Your task to perform on an android device: clear all cookies in the chrome app Image 0: 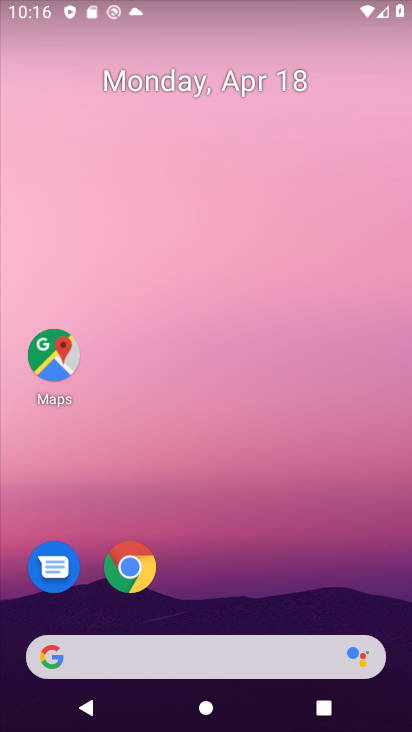
Step 0: click (139, 573)
Your task to perform on an android device: clear all cookies in the chrome app Image 1: 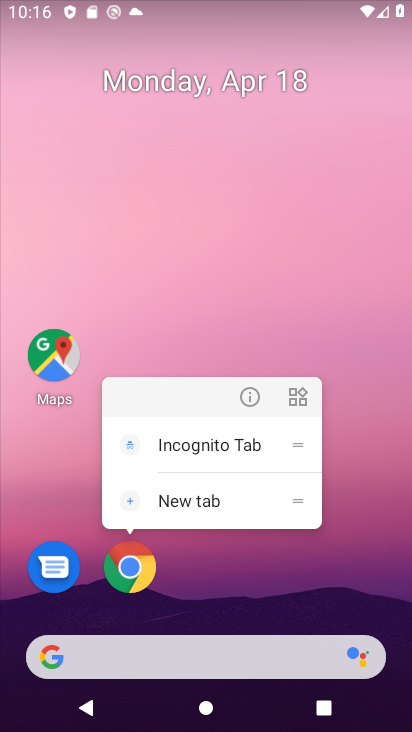
Step 1: click (135, 568)
Your task to perform on an android device: clear all cookies in the chrome app Image 2: 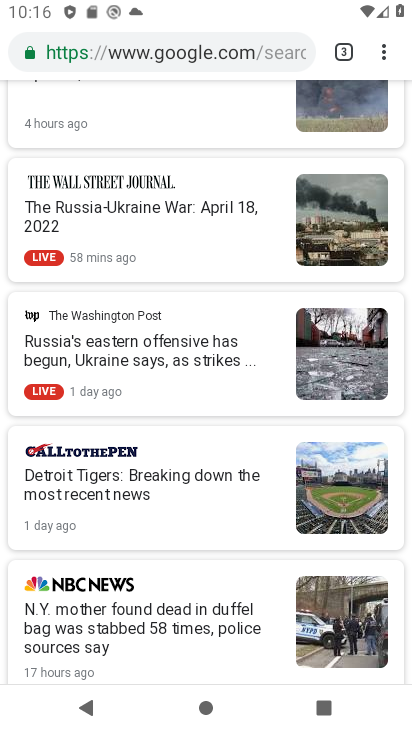
Step 2: click (381, 51)
Your task to perform on an android device: clear all cookies in the chrome app Image 3: 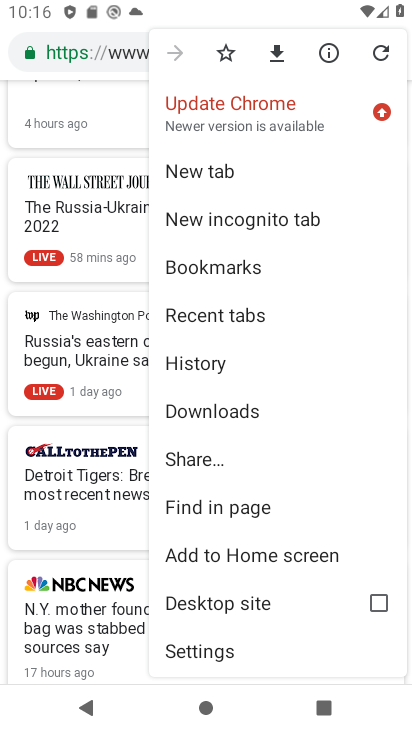
Step 3: click (195, 652)
Your task to perform on an android device: clear all cookies in the chrome app Image 4: 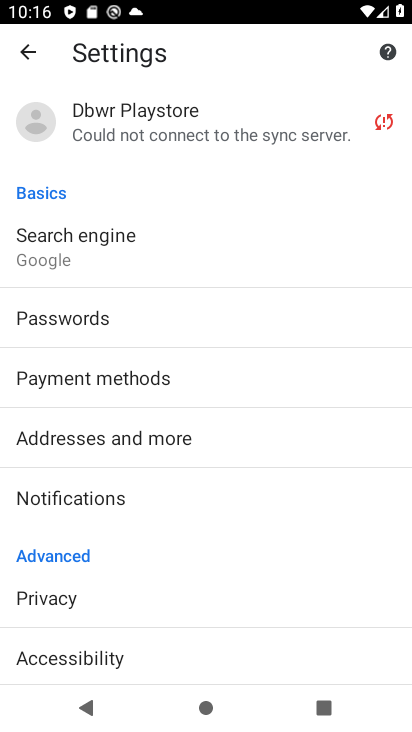
Step 4: drag from (146, 640) to (176, 316)
Your task to perform on an android device: clear all cookies in the chrome app Image 5: 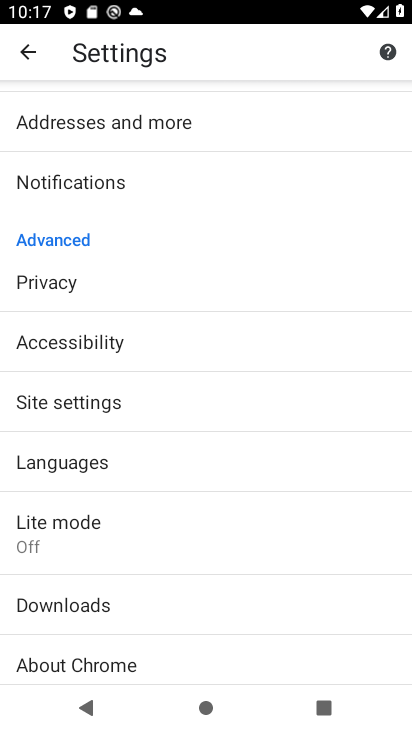
Step 5: click (47, 283)
Your task to perform on an android device: clear all cookies in the chrome app Image 6: 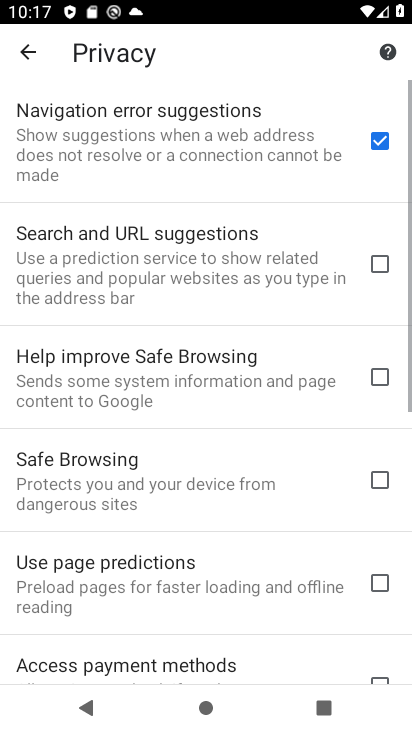
Step 6: drag from (104, 652) to (126, 106)
Your task to perform on an android device: clear all cookies in the chrome app Image 7: 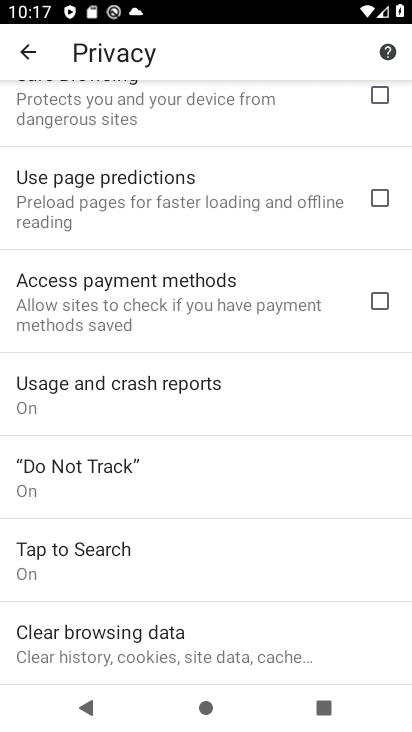
Step 7: click (152, 650)
Your task to perform on an android device: clear all cookies in the chrome app Image 8: 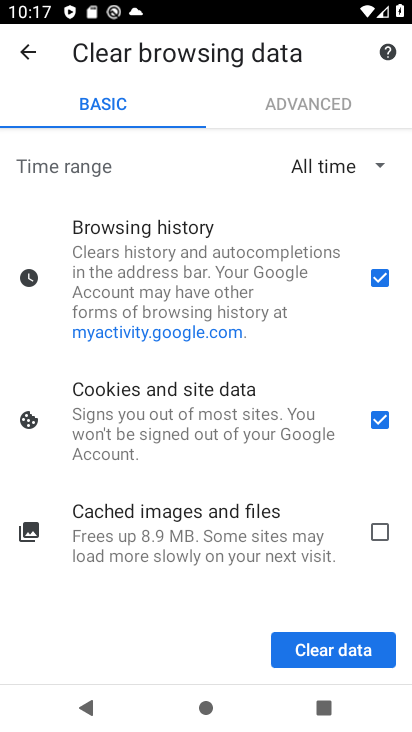
Step 8: click (381, 272)
Your task to perform on an android device: clear all cookies in the chrome app Image 9: 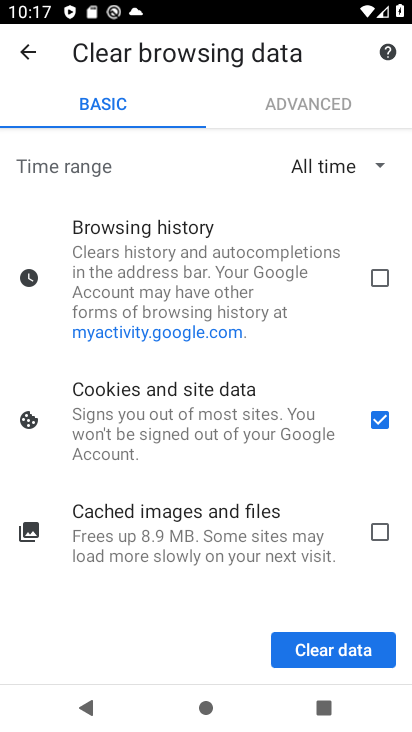
Step 9: click (349, 653)
Your task to perform on an android device: clear all cookies in the chrome app Image 10: 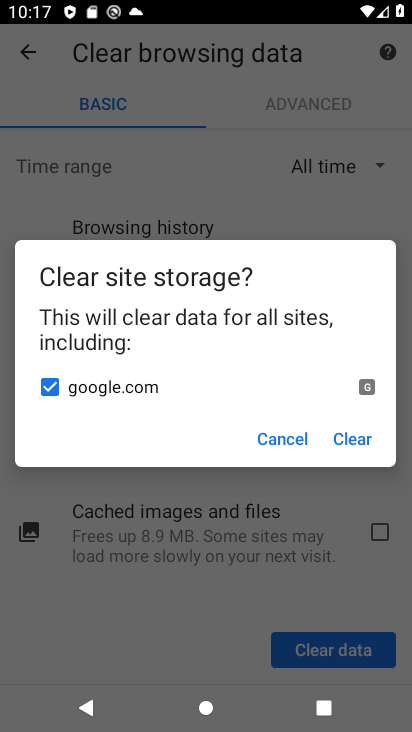
Step 10: click (359, 437)
Your task to perform on an android device: clear all cookies in the chrome app Image 11: 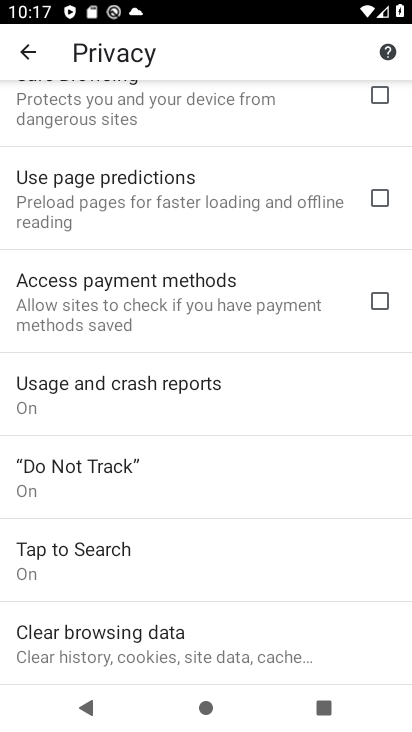
Step 11: task complete